Your task to perform on an android device: Open CNN.com Image 0: 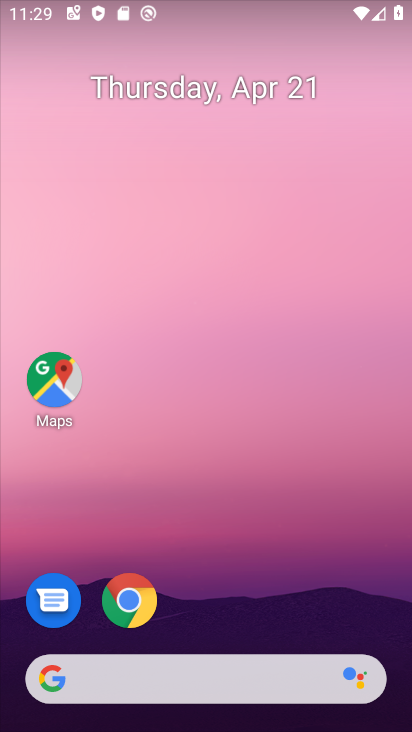
Step 0: click (133, 605)
Your task to perform on an android device: Open CNN.com Image 1: 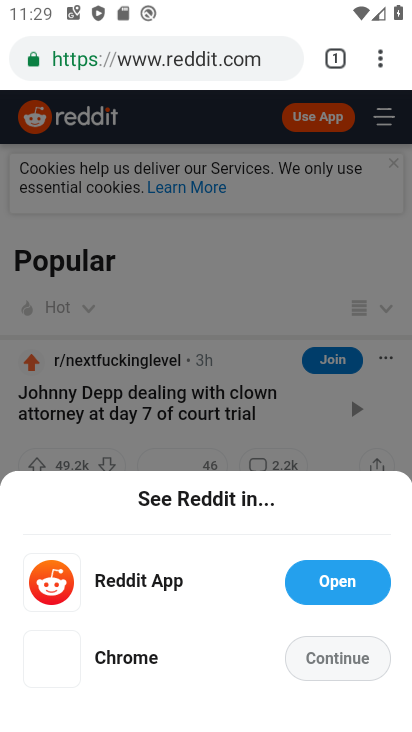
Step 1: click (112, 68)
Your task to perform on an android device: Open CNN.com Image 2: 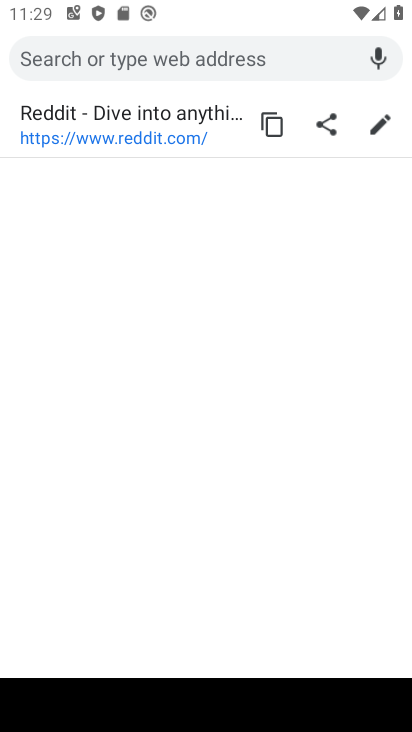
Step 2: type "CNN.com"
Your task to perform on an android device: Open CNN.com Image 3: 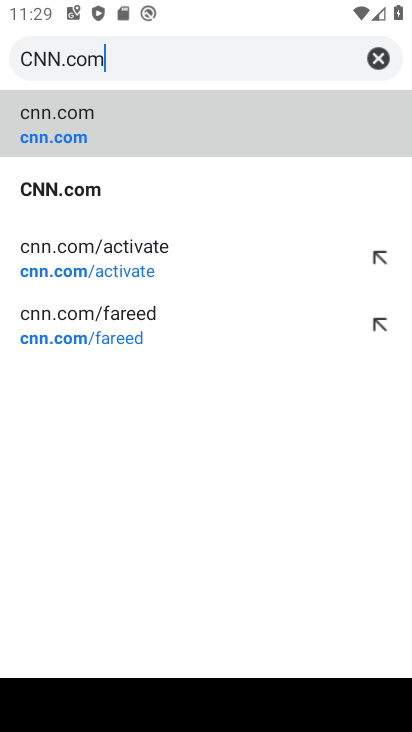
Step 3: click (92, 189)
Your task to perform on an android device: Open CNN.com Image 4: 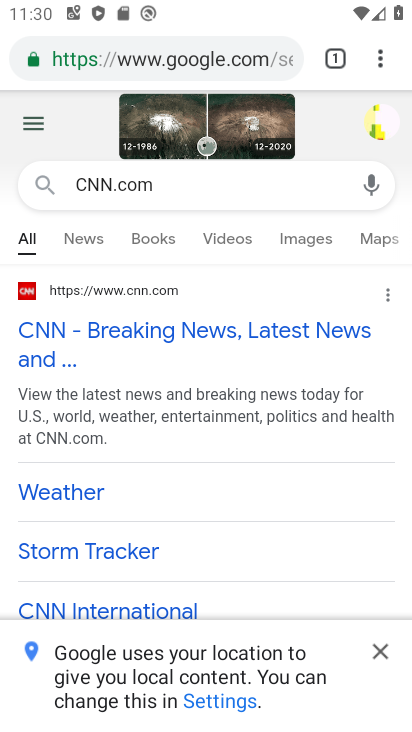
Step 4: task complete